Your task to perform on an android device: Open Youtube and go to the subscriptions tab Image 0: 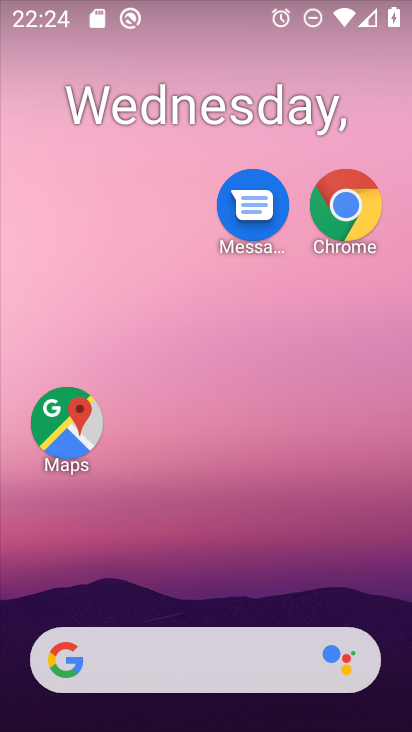
Step 0: drag from (209, 595) to (250, 146)
Your task to perform on an android device: Open Youtube and go to the subscriptions tab Image 1: 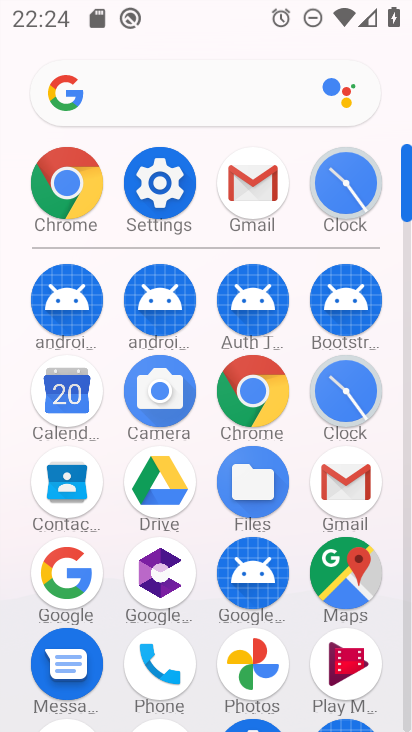
Step 1: drag from (203, 632) to (211, 274)
Your task to perform on an android device: Open Youtube and go to the subscriptions tab Image 2: 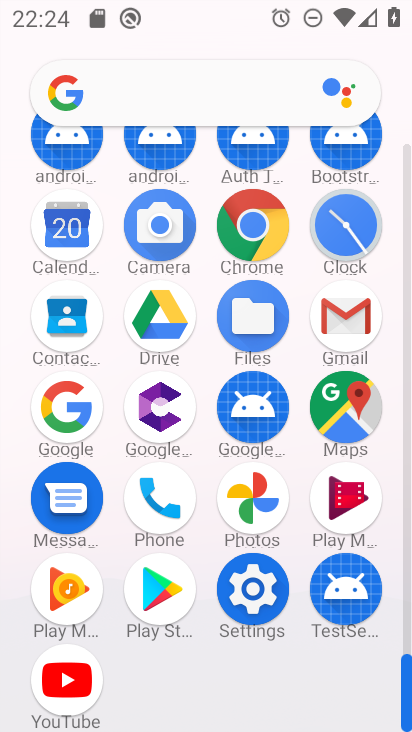
Step 2: click (76, 680)
Your task to perform on an android device: Open Youtube and go to the subscriptions tab Image 3: 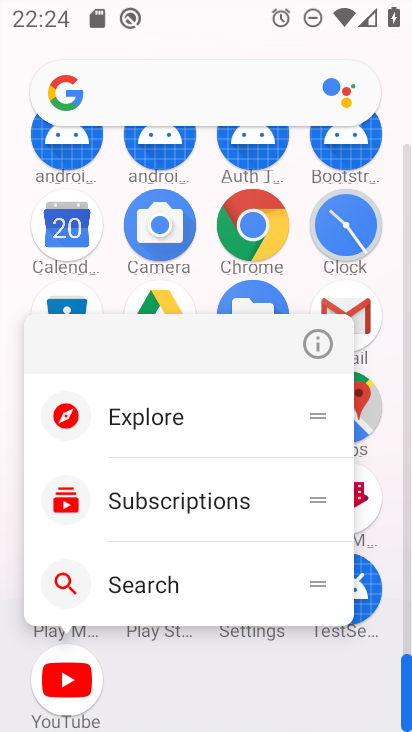
Step 3: click (312, 343)
Your task to perform on an android device: Open Youtube and go to the subscriptions tab Image 4: 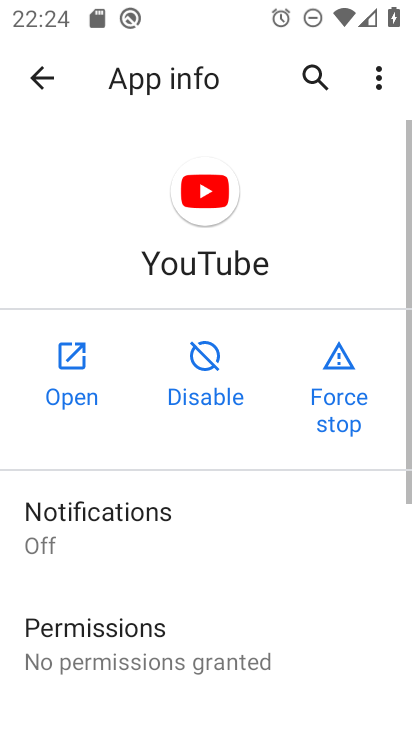
Step 4: click (63, 354)
Your task to perform on an android device: Open Youtube and go to the subscriptions tab Image 5: 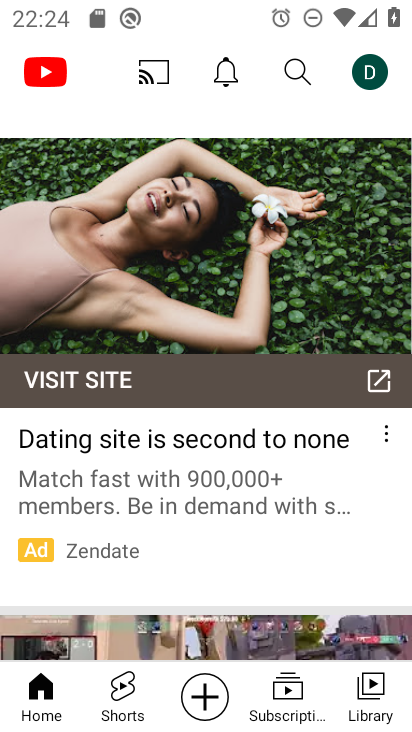
Step 5: click (285, 685)
Your task to perform on an android device: Open Youtube and go to the subscriptions tab Image 6: 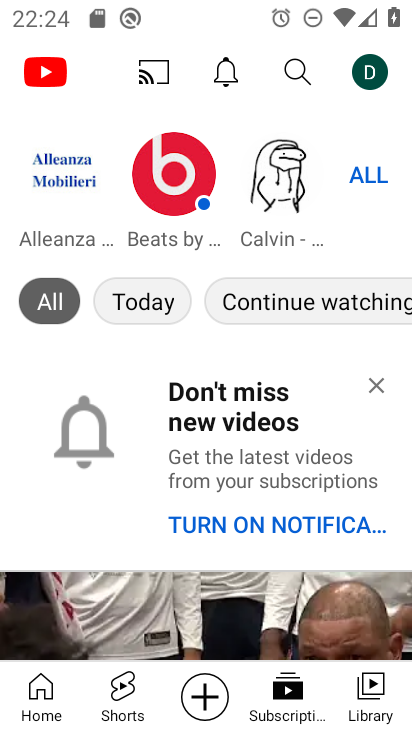
Step 6: task complete